Your task to perform on an android device: What's the time? Image 0: 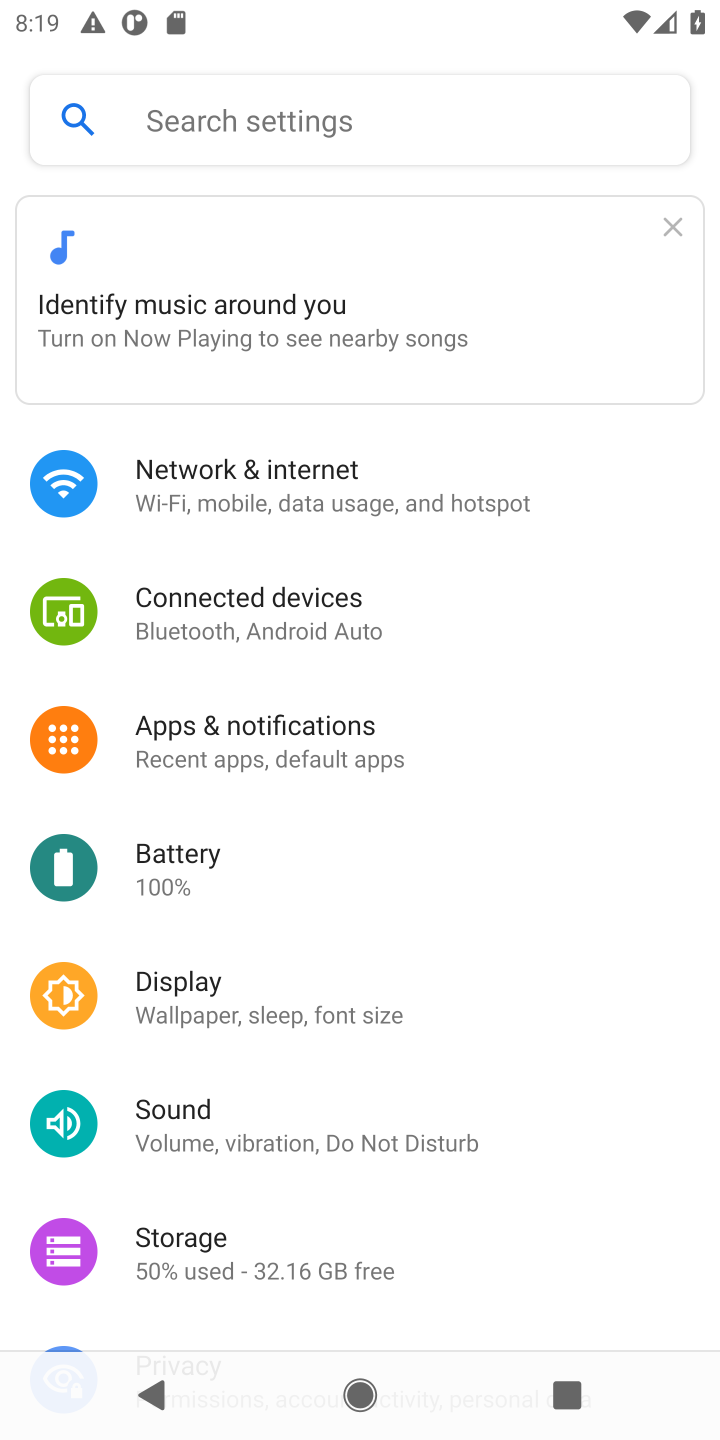
Step 0: press home button
Your task to perform on an android device: What's the time? Image 1: 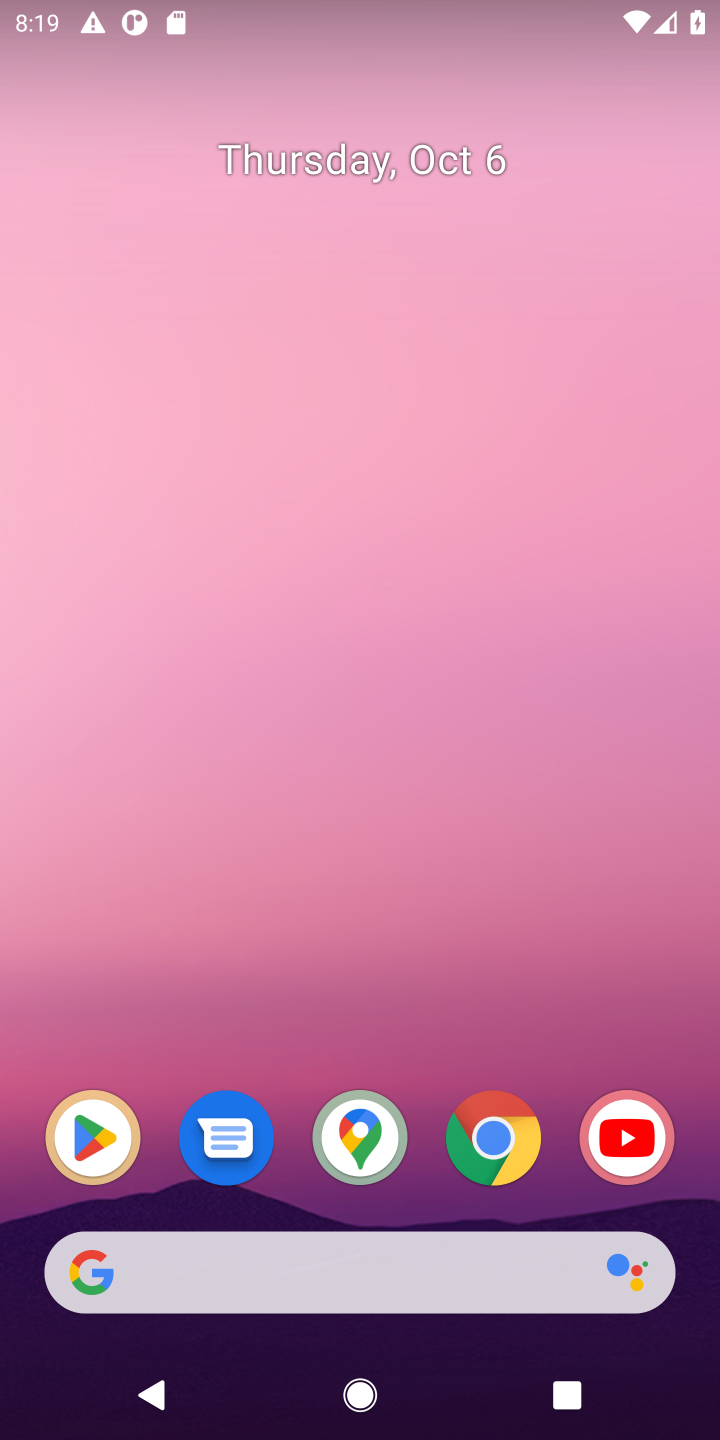
Step 1: drag from (277, 1159) to (366, 8)
Your task to perform on an android device: What's the time? Image 2: 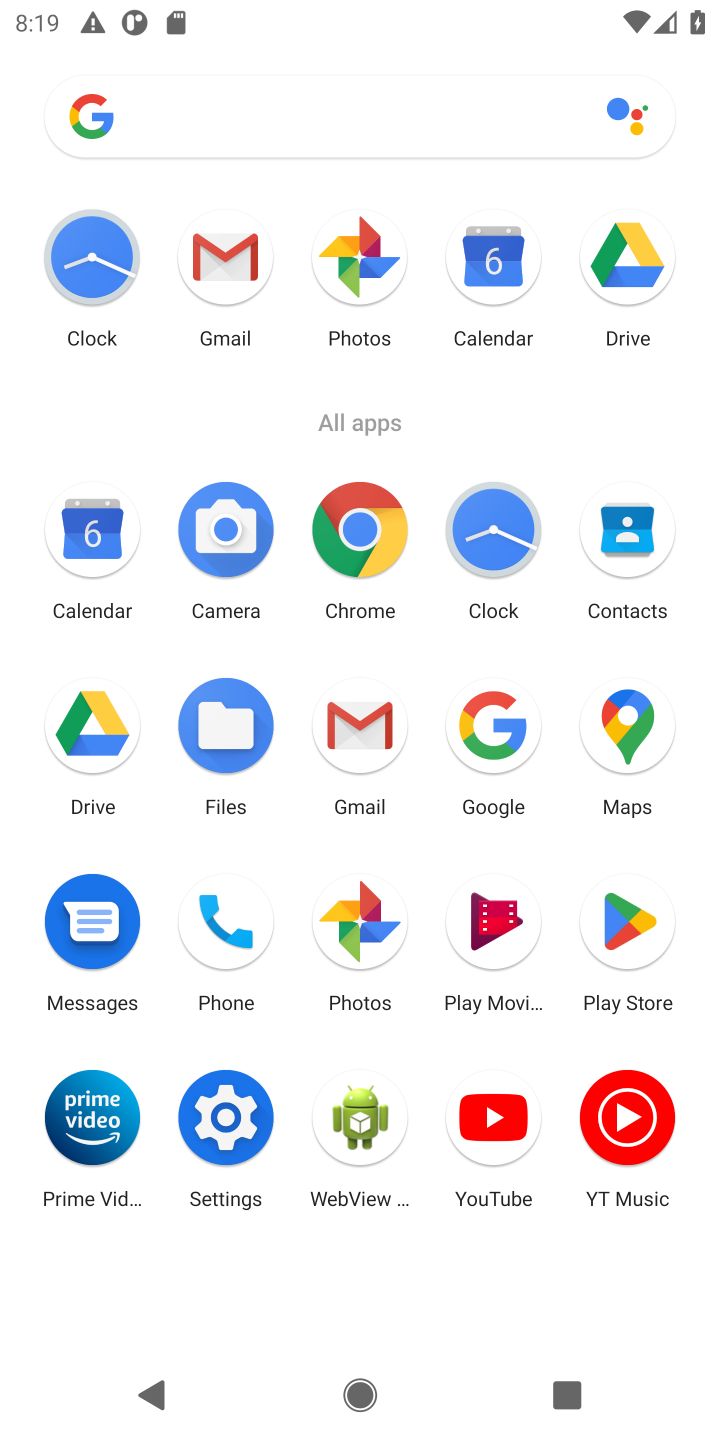
Step 2: click (524, 530)
Your task to perform on an android device: What's the time? Image 3: 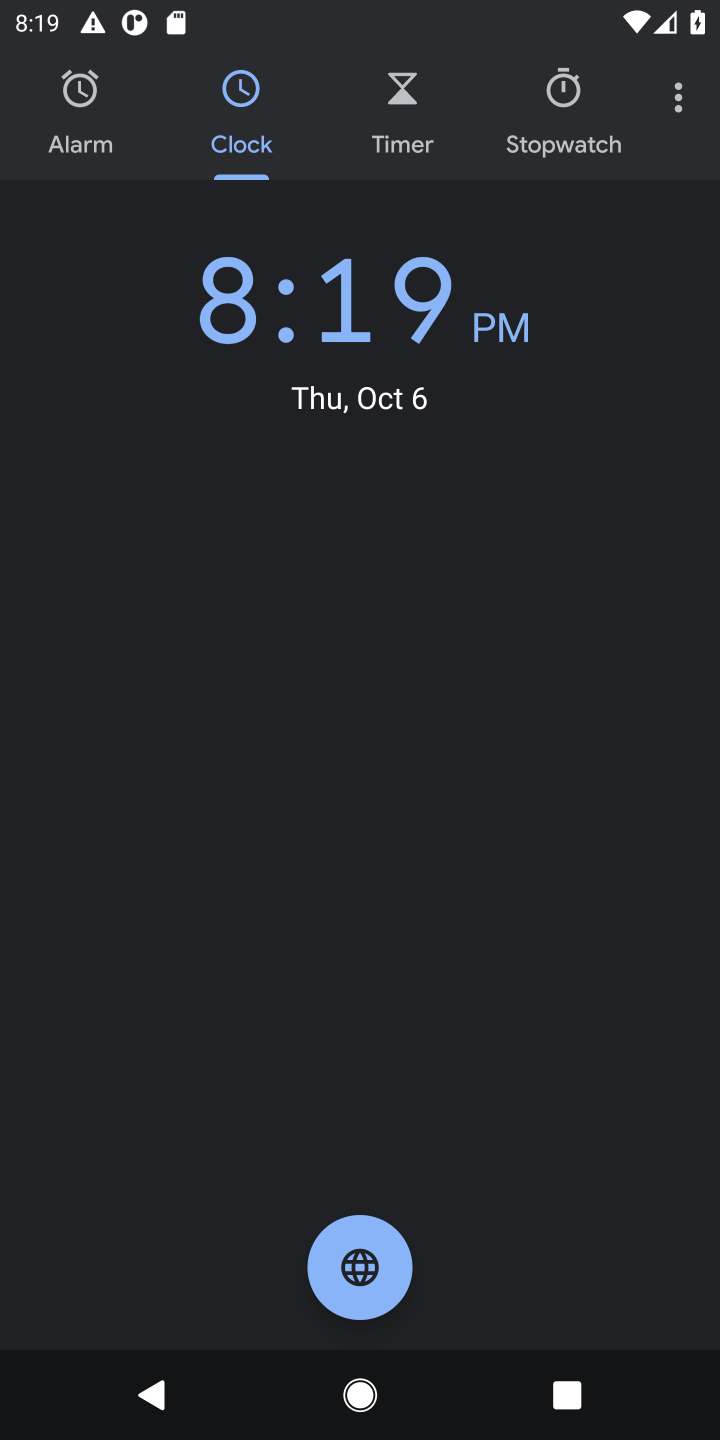
Step 3: task complete